Your task to perform on an android device: What's the weather? Image 0: 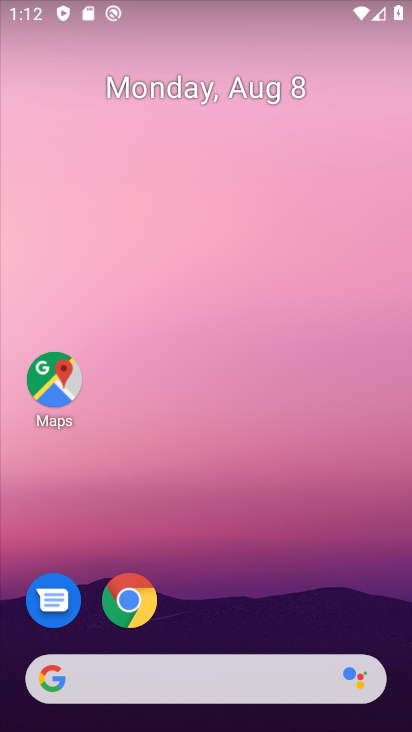
Step 0: press home button
Your task to perform on an android device: What's the weather? Image 1: 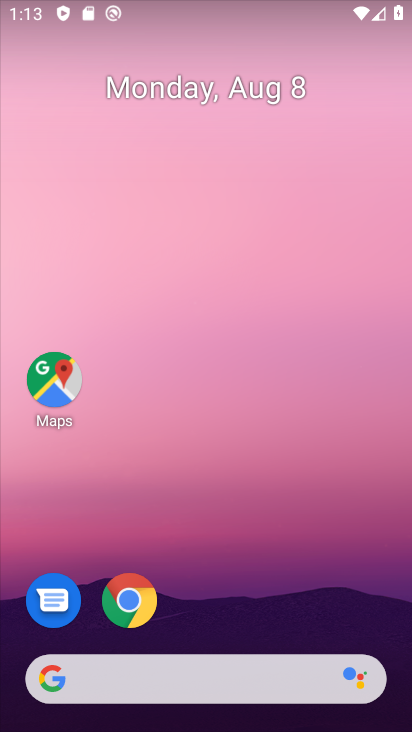
Step 1: click (157, 587)
Your task to perform on an android device: What's the weather? Image 2: 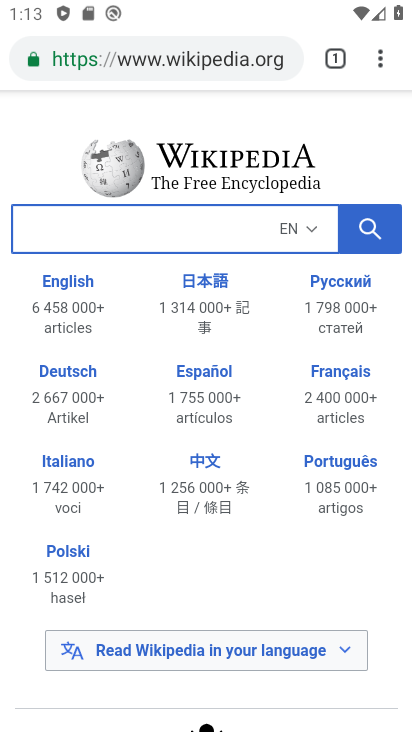
Step 2: click (136, 56)
Your task to perform on an android device: What's the weather? Image 3: 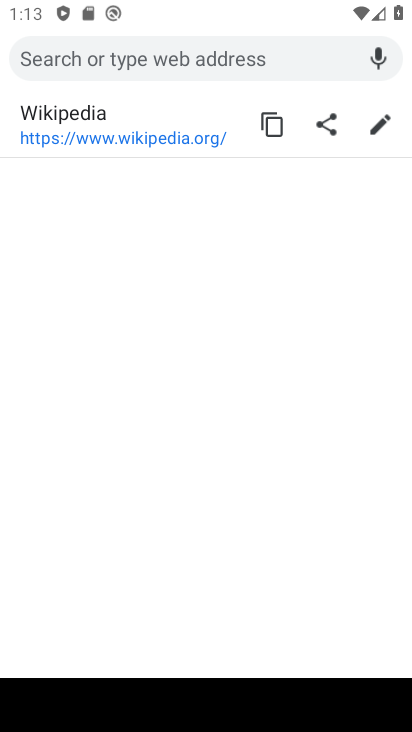
Step 3: type "What's the weather?"
Your task to perform on an android device: What's the weather? Image 4: 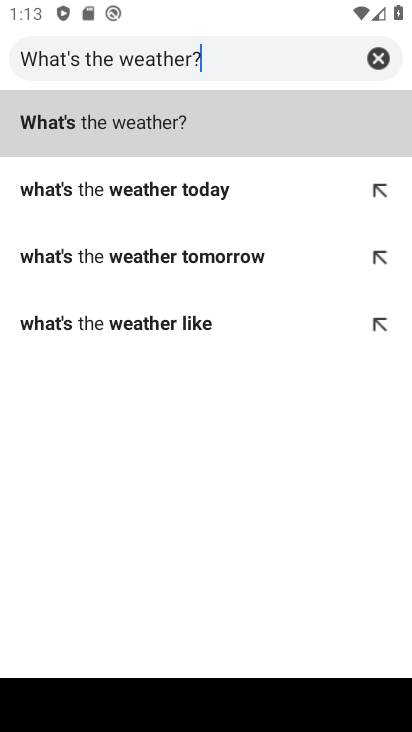
Step 4: click (32, 114)
Your task to perform on an android device: What's the weather? Image 5: 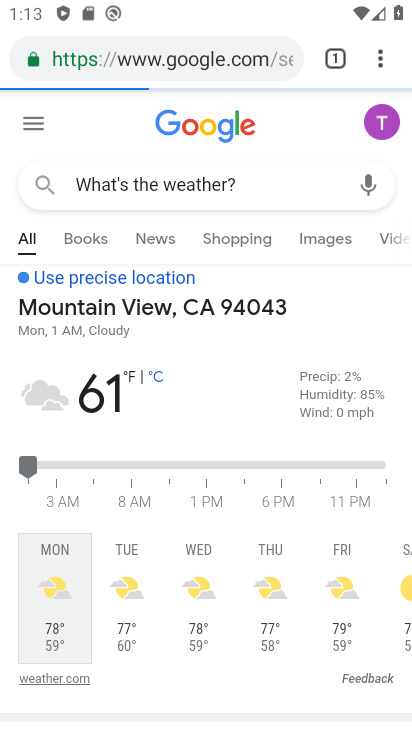
Step 5: task complete